Your task to perform on an android device: empty trash in google photos Image 0: 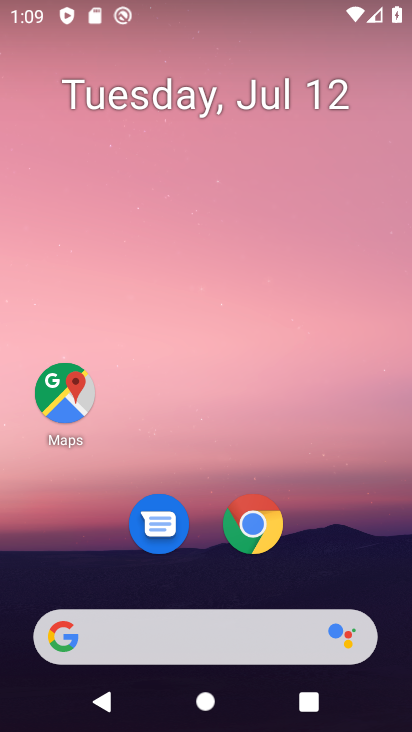
Step 0: drag from (324, 526) to (279, 17)
Your task to perform on an android device: empty trash in google photos Image 1: 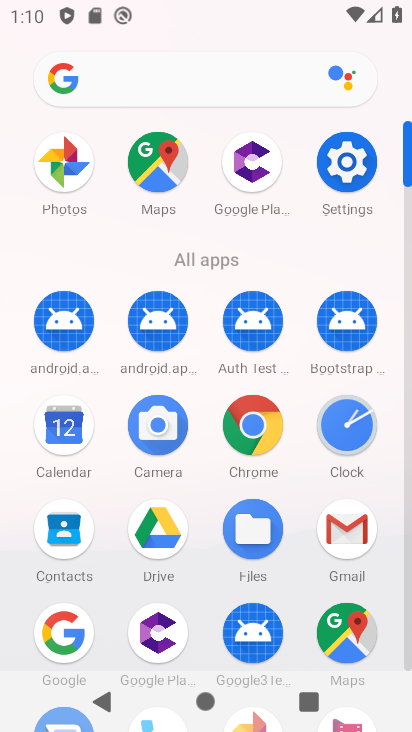
Step 1: click (70, 164)
Your task to perform on an android device: empty trash in google photos Image 2: 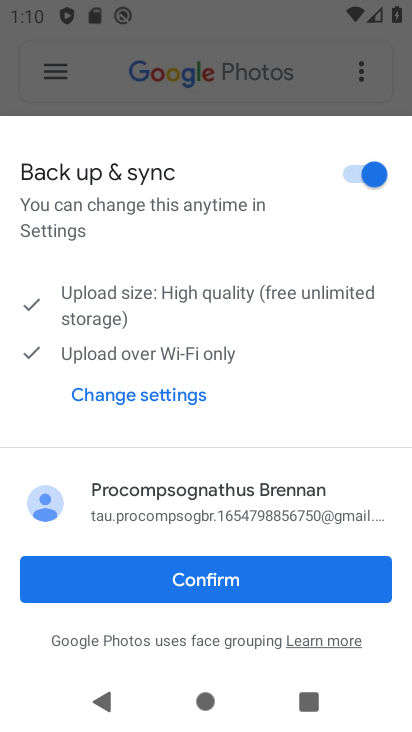
Step 2: press home button
Your task to perform on an android device: empty trash in google photos Image 3: 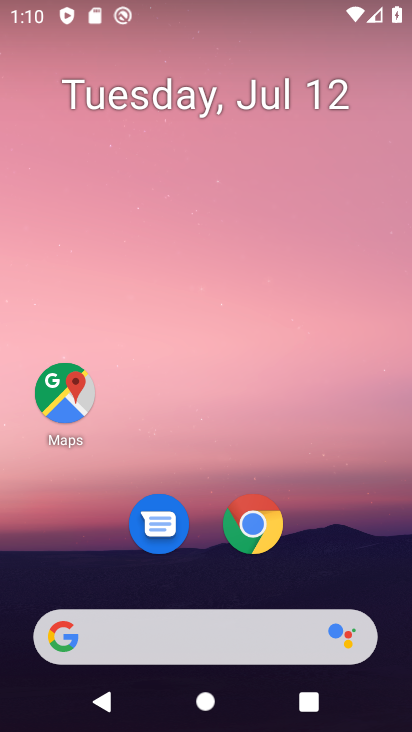
Step 3: drag from (318, 568) to (279, 113)
Your task to perform on an android device: empty trash in google photos Image 4: 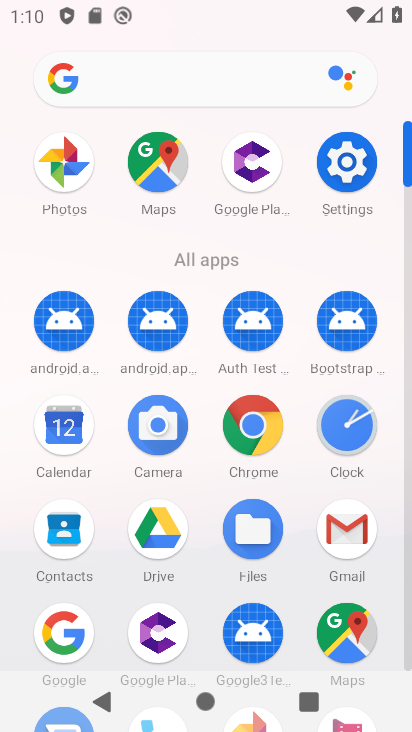
Step 4: click (70, 159)
Your task to perform on an android device: empty trash in google photos Image 5: 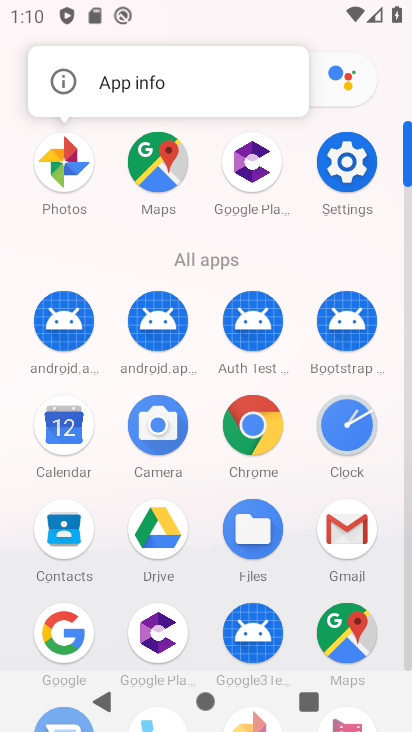
Step 5: click (67, 167)
Your task to perform on an android device: empty trash in google photos Image 6: 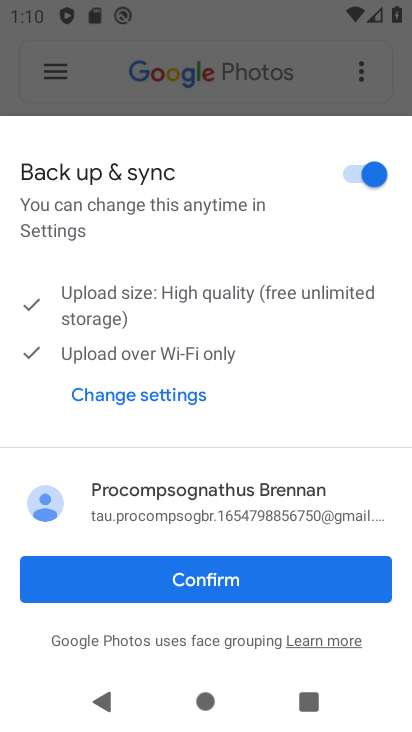
Step 6: click (272, 570)
Your task to perform on an android device: empty trash in google photos Image 7: 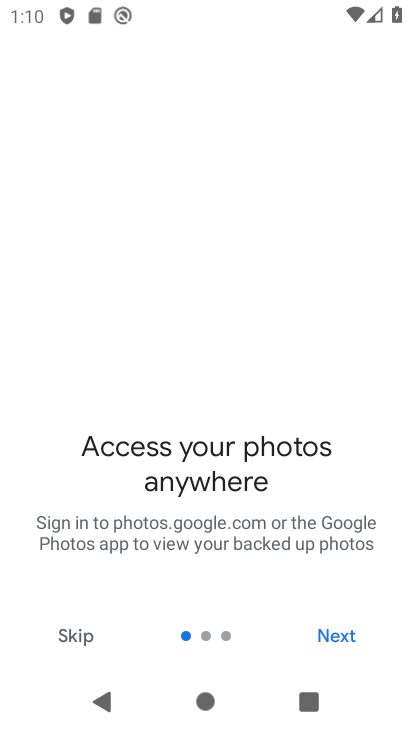
Step 7: click (332, 632)
Your task to perform on an android device: empty trash in google photos Image 8: 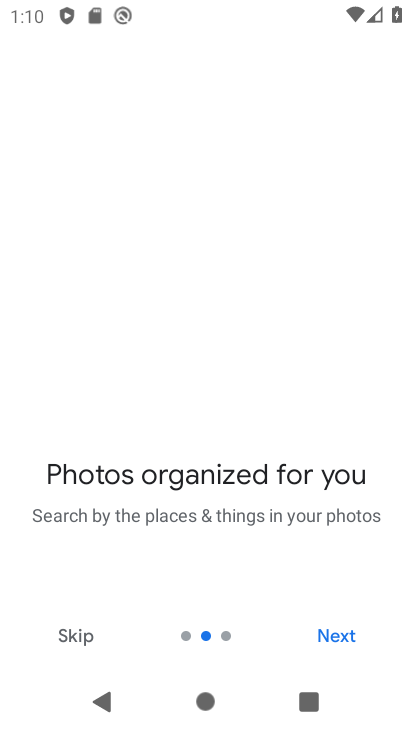
Step 8: click (332, 633)
Your task to perform on an android device: empty trash in google photos Image 9: 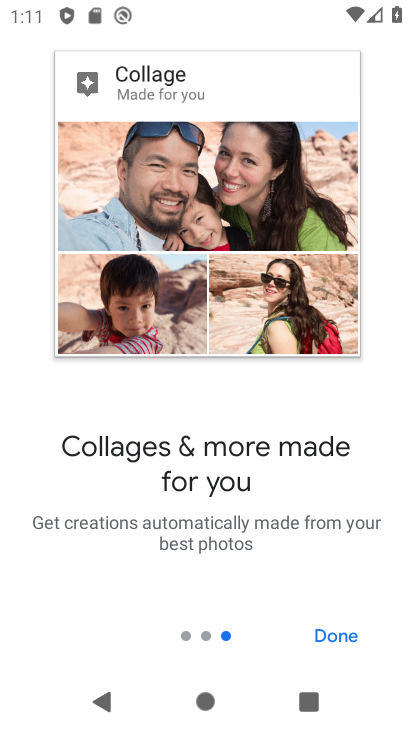
Step 9: click (339, 633)
Your task to perform on an android device: empty trash in google photos Image 10: 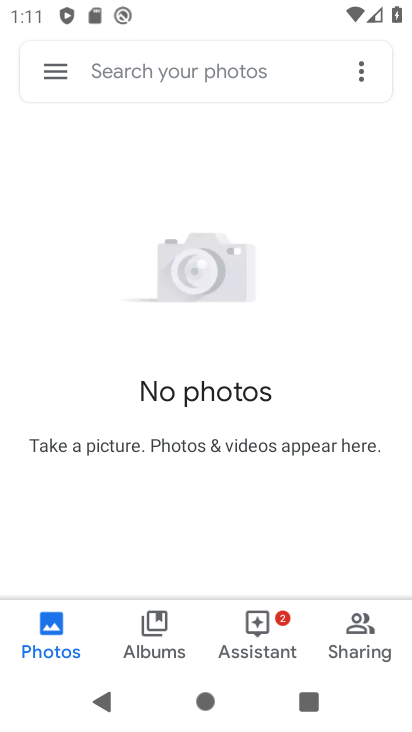
Step 10: click (64, 76)
Your task to perform on an android device: empty trash in google photos Image 11: 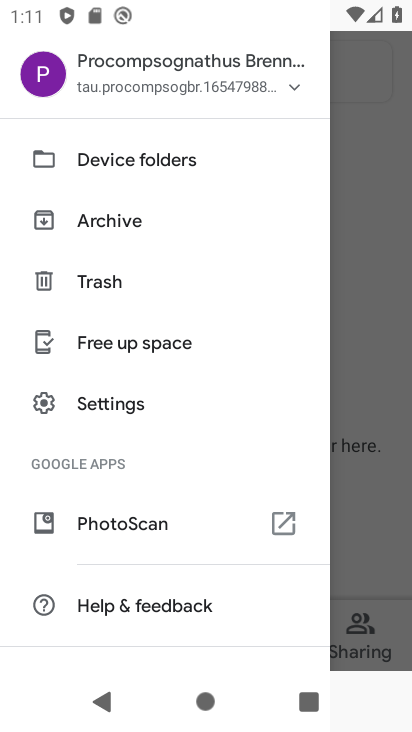
Step 11: click (85, 278)
Your task to perform on an android device: empty trash in google photos Image 12: 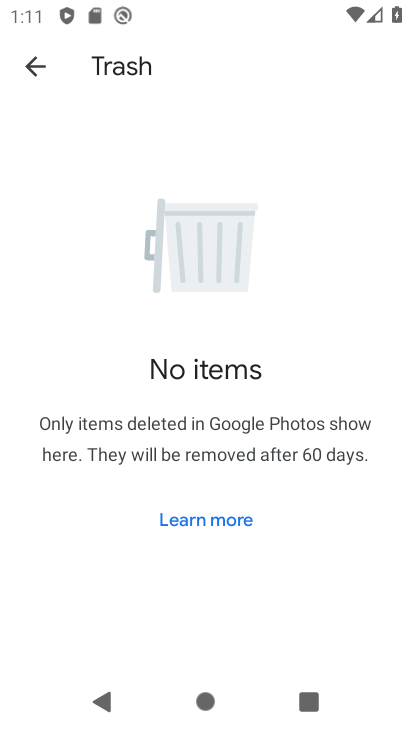
Step 12: task complete